Your task to perform on an android device: Open Google Maps and go to "Timeline" Image 0: 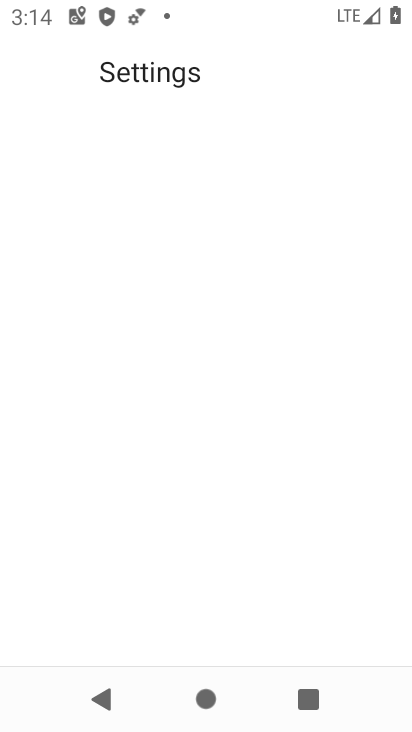
Step 0: click (246, 507)
Your task to perform on an android device: Open Google Maps and go to "Timeline" Image 1: 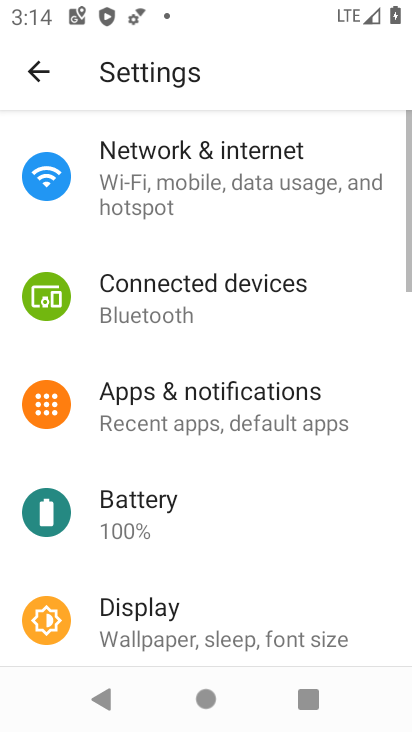
Step 1: press home button
Your task to perform on an android device: Open Google Maps and go to "Timeline" Image 2: 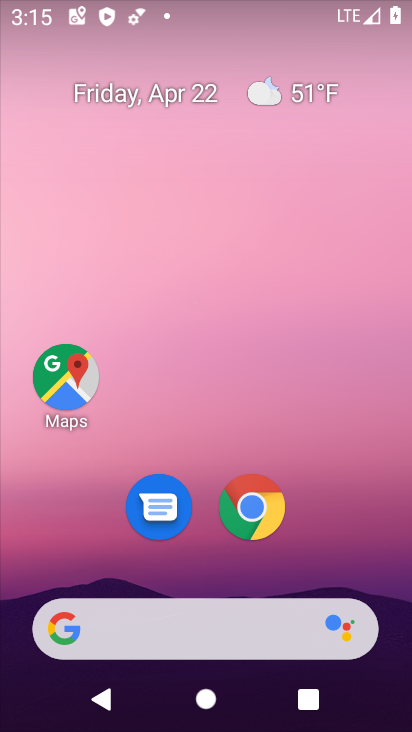
Step 2: drag from (182, 554) to (318, 56)
Your task to perform on an android device: Open Google Maps and go to "Timeline" Image 3: 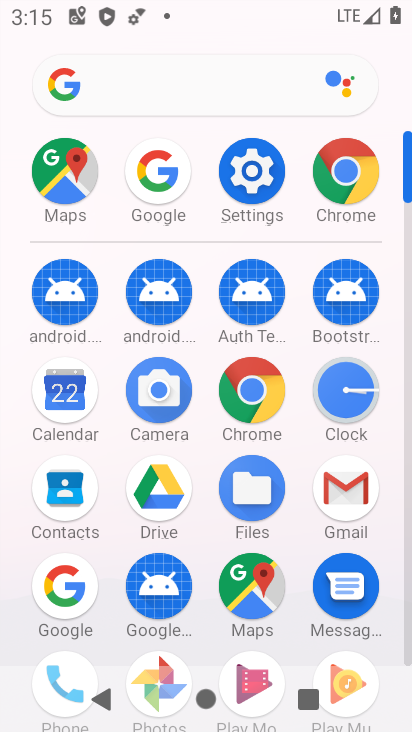
Step 3: click (53, 198)
Your task to perform on an android device: Open Google Maps and go to "Timeline" Image 4: 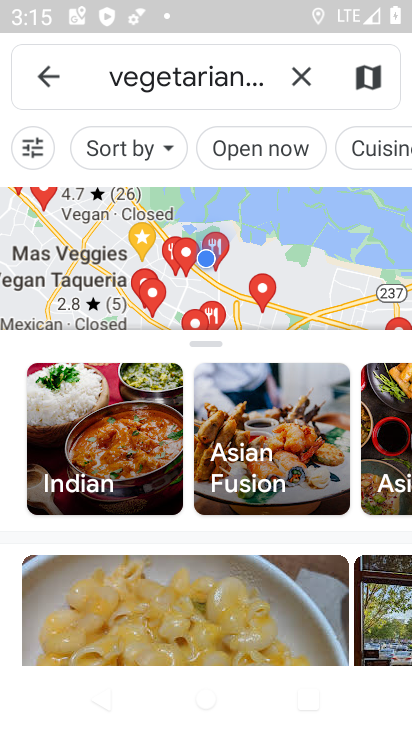
Step 4: click (41, 95)
Your task to perform on an android device: Open Google Maps and go to "Timeline" Image 5: 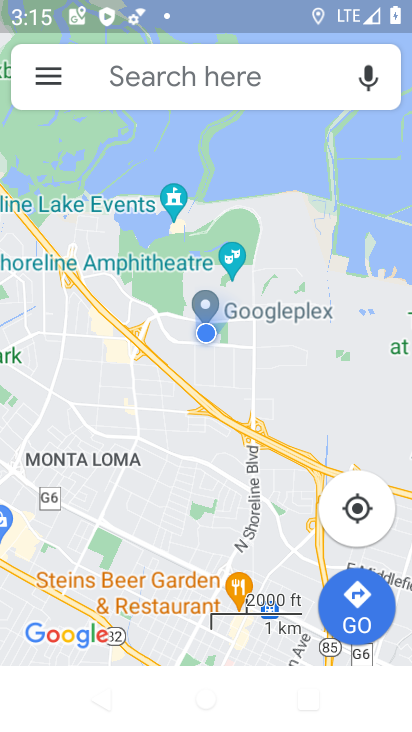
Step 5: click (48, 73)
Your task to perform on an android device: Open Google Maps and go to "Timeline" Image 6: 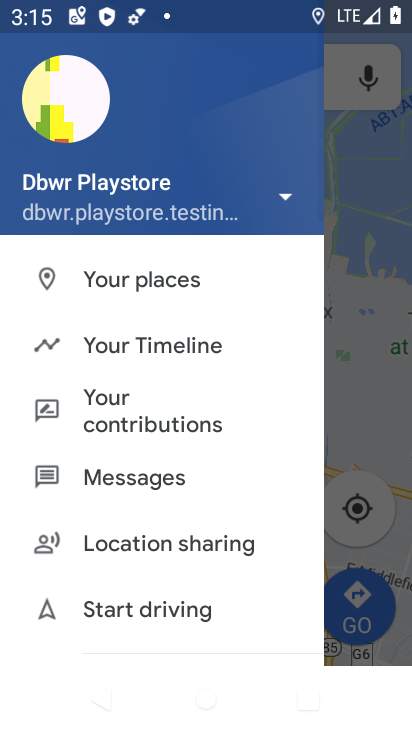
Step 6: click (112, 336)
Your task to perform on an android device: Open Google Maps and go to "Timeline" Image 7: 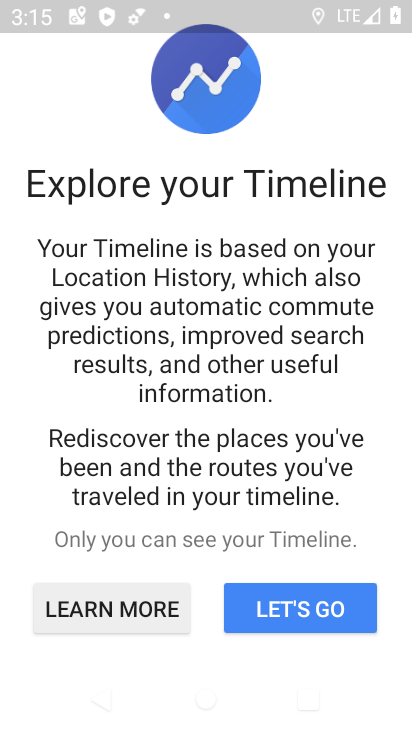
Step 7: click (335, 617)
Your task to perform on an android device: Open Google Maps and go to "Timeline" Image 8: 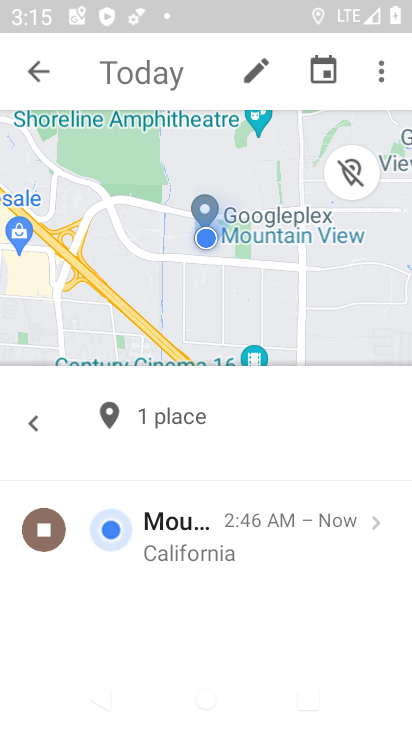
Step 8: task complete